Your task to perform on an android device: Open battery settings Image 0: 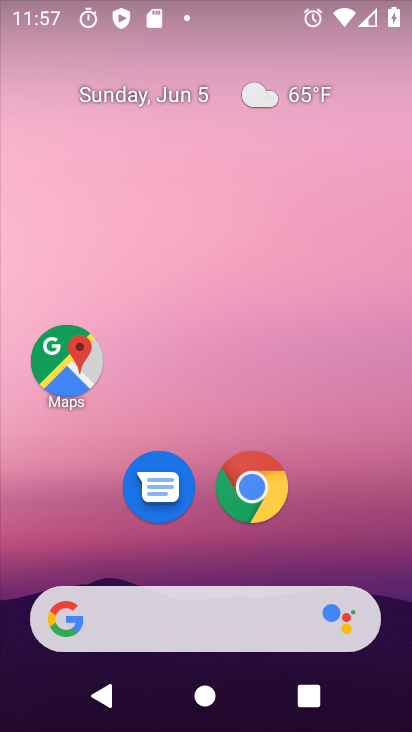
Step 0: drag from (343, 527) to (250, 3)
Your task to perform on an android device: Open battery settings Image 1: 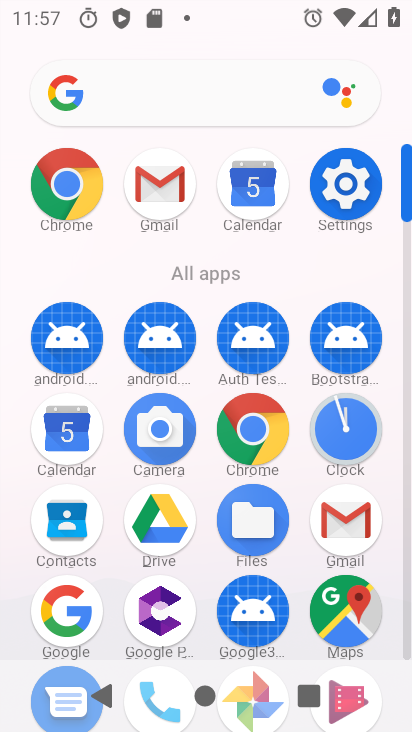
Step 1: click (344, 184)
Your task to perform on an android device: Open battery settings Image 2: 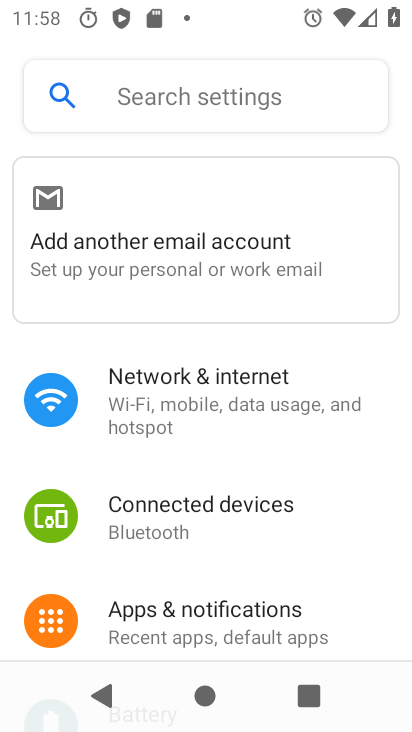
Step 2: drag from (223, 565) to (255, 422)
Your task to perform on an android device: Open battery settings Image 3: 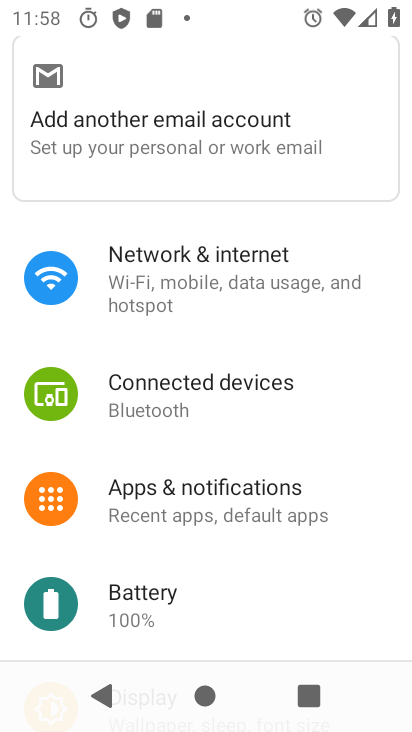
Step 3: drag from (185, 581) to (189, 388)
Your task to perform on an android device: Open battery settings Image 4: 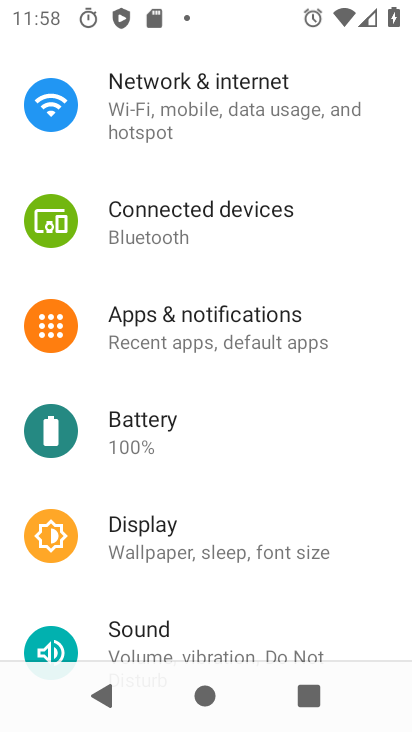
Step 4: click (156, 434)
Your task to perform on an android device: Open battery settings Image 5: 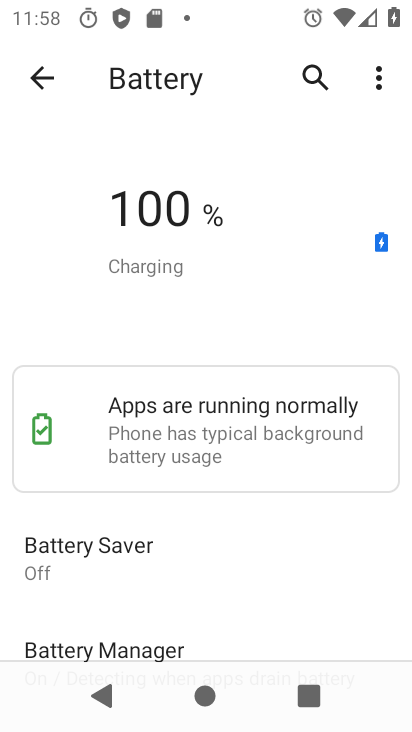
Step 5: task complete